Your task to perform on an android device: toggle notifications settings in the gmail app Image 0: 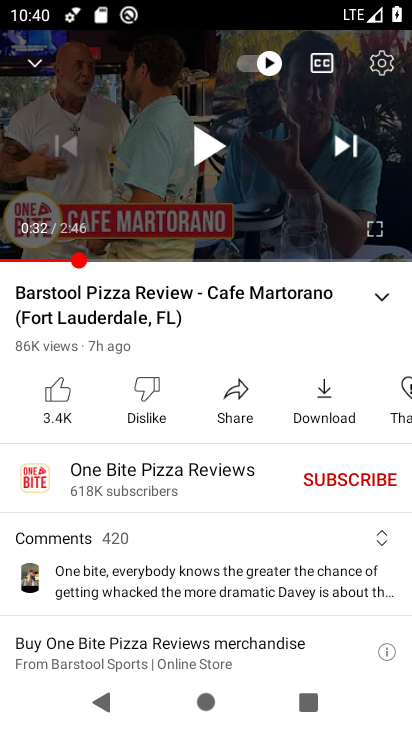
Step 0: press home button
Your task to perform on an android device: toggle notifications settings in the gmail app Image 1: 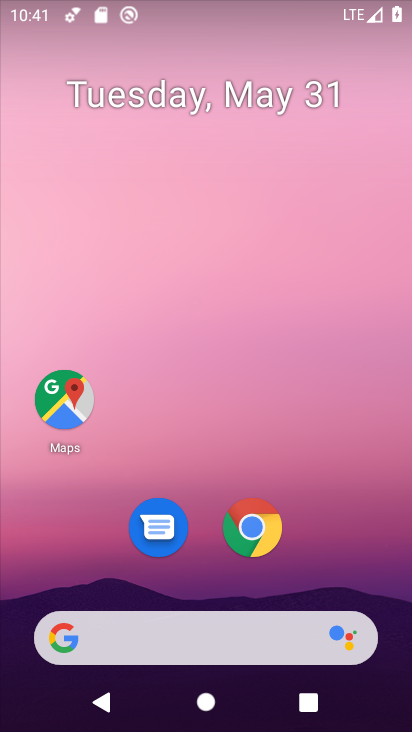
Step 1: drag from (332, 513) to (321, 3)
Your task to perform on an android device: toggle notifications settings in the gmail app Image 2: 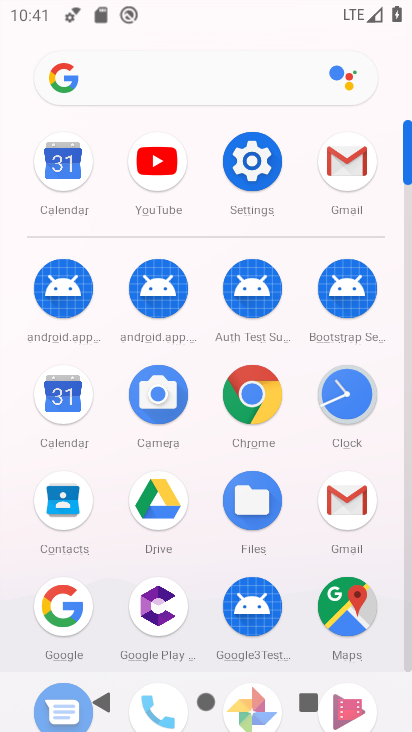
Step 2: click (346, 175)
Your task to perform on an android device: toggle notifications settings in the gmail app Image 3: 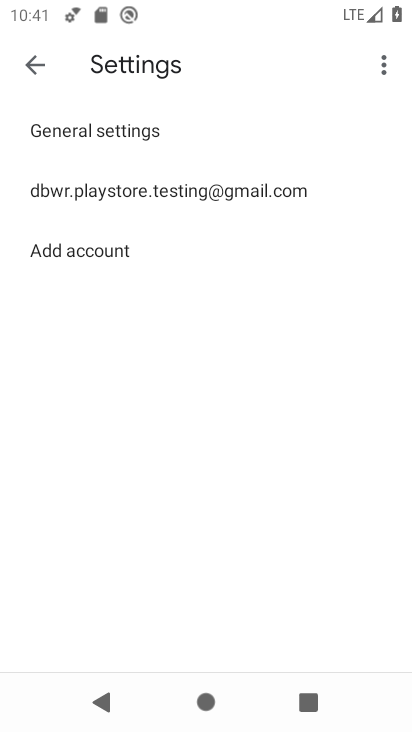
Step 3: click (56, 130)
Your task to perform on an android device: toggle notifications settings in the gmail app Image 4: 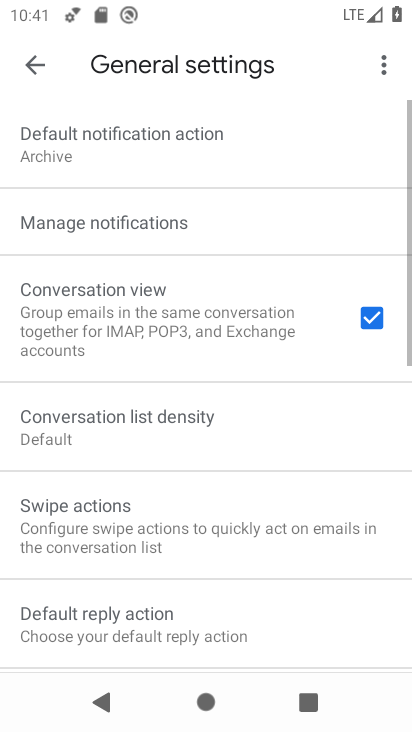
Step 4: click (76, 220)
Your task to perform on an android device: toggle notifications settings in the gmail app Image 5: 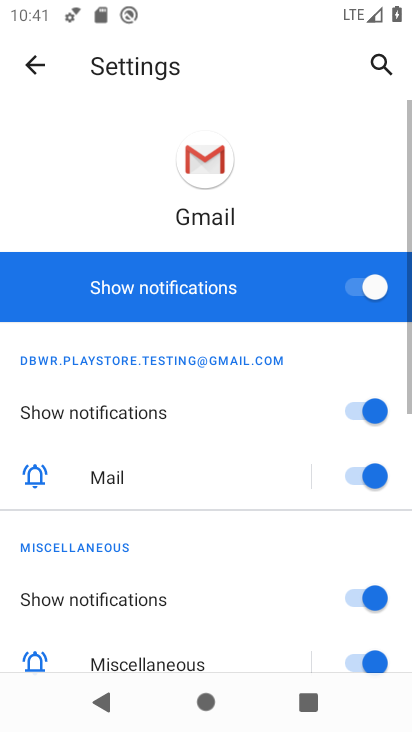
Step 5: click (389, 298)
Your task to perform on an android device: toggle notifications settings in the gmail app Image 6: 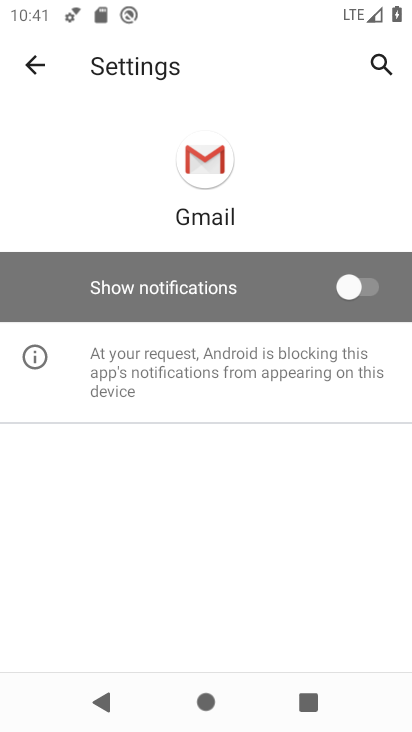
Step 6: task complete